Your task to perform on an android device: turn on the 12-hour format for clock Image 0: 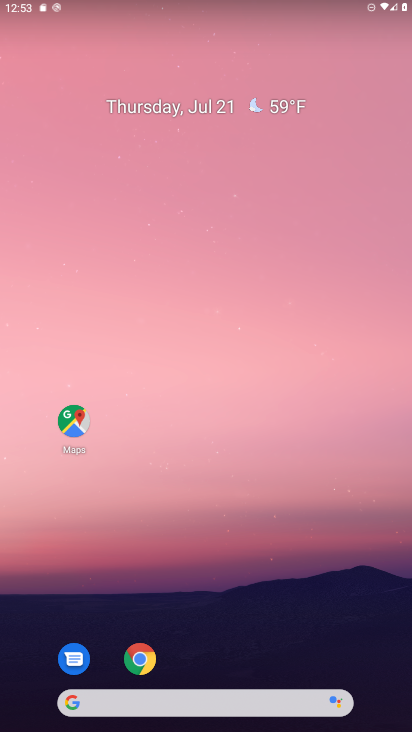
Step 0: drag from (41, 628) to (337, 102)
Your task to perform on an android device: turn on the 12-hour format for clock Image 1: 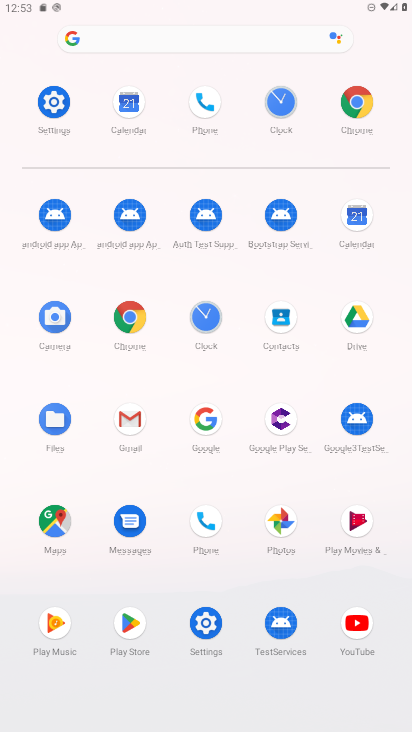
Step 1: click (206, 330)
Your task to perform on an android device: turn on the 12-hour format for clock Image 2: 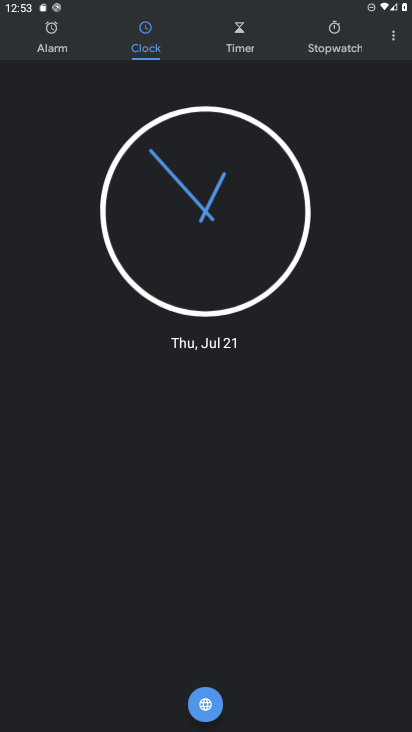
Step 2: click (389, 41)
Your task to perform on an android device: turn on the 12-hour format for clock Image 3: 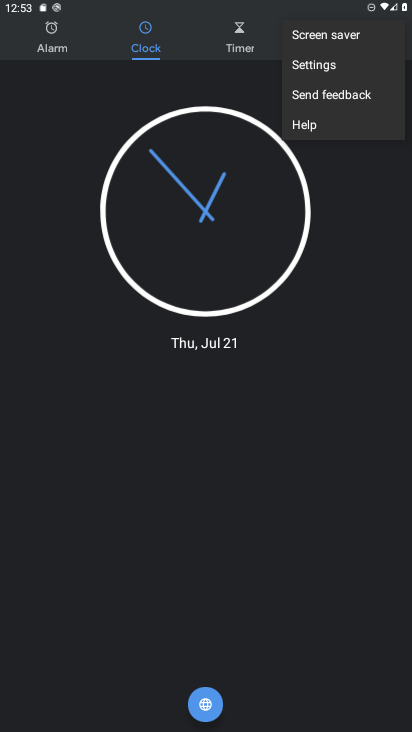
Step 3: click (359, 71)
Your task to perform on an android device: turn on the 12-hour format for clock Image 4: 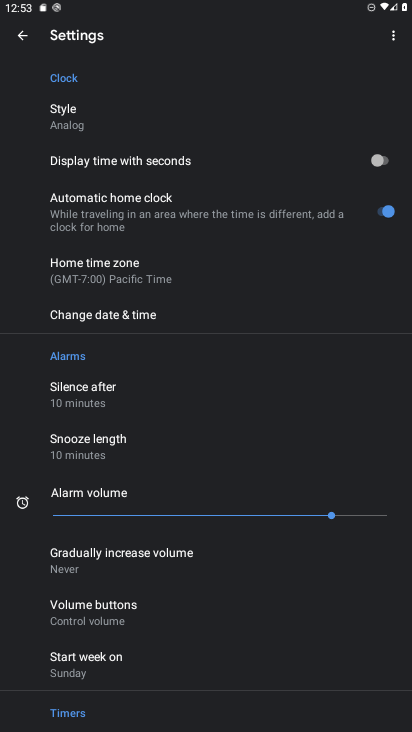
Step 4: click (142, 318)
Your task to perform on an android device: turn on the 12-hour format for clock Image 5: 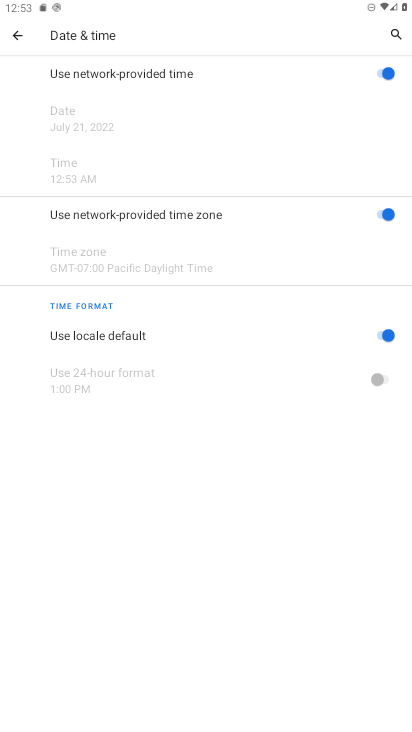
Step 5: task complete